Your task to perform on an android device: turn notification dots off Image 0: 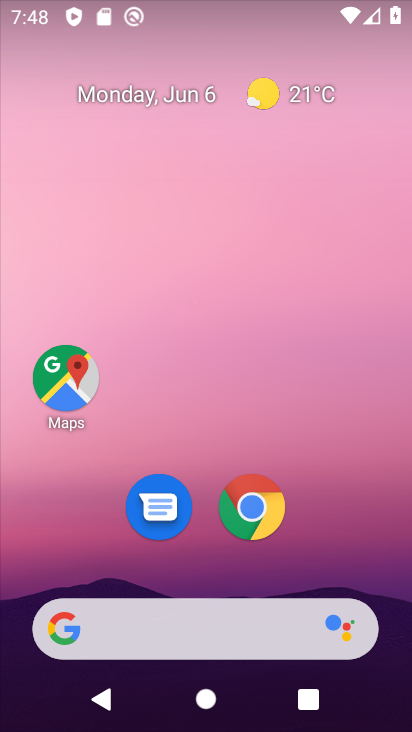
Step 0: drag from (300, 550) to (247, 28)
Your task to perform on an android device: turn notification dots off Image 1: 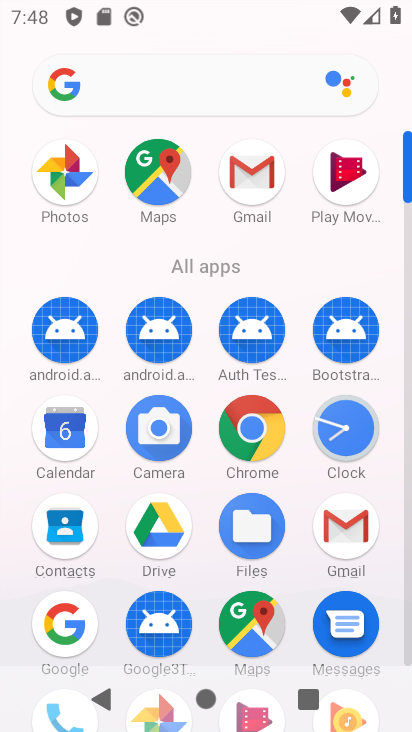
Step 1: drag from (289, 565) to (238, 212)
Your task to perform on an android device: turn notification dots off Image 2: 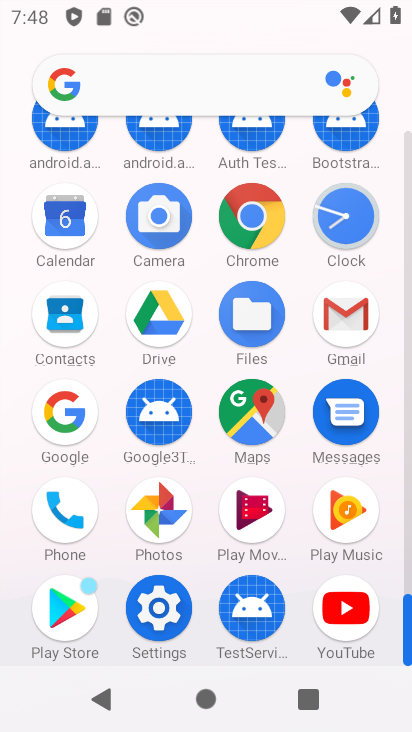
Step 2: click (169, 610)
Your task to perform on an android device: turn notification dots off Image 3: 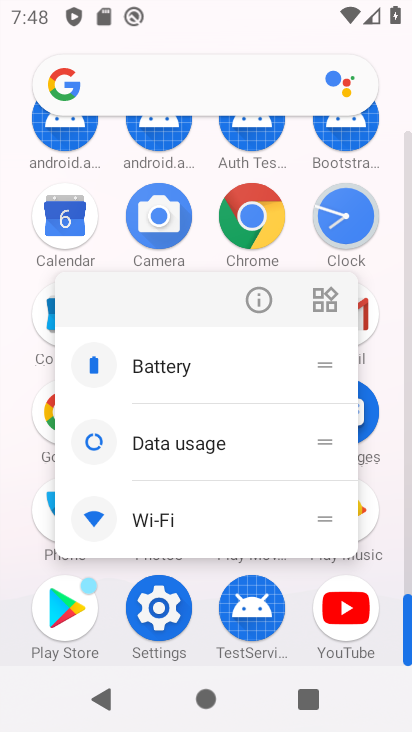
Step 3: click (169, 610)
Your task to perform on an android device: turn notification dots off Image 4: 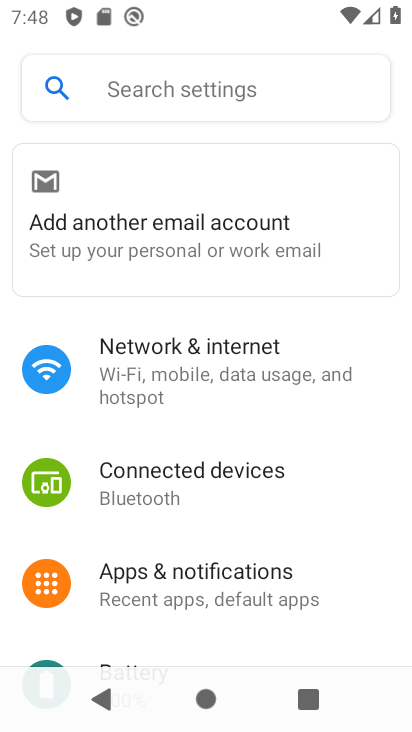
Step 4: click (164, 598)
Your task to perform on an android device: turn notification dots off Image 5: 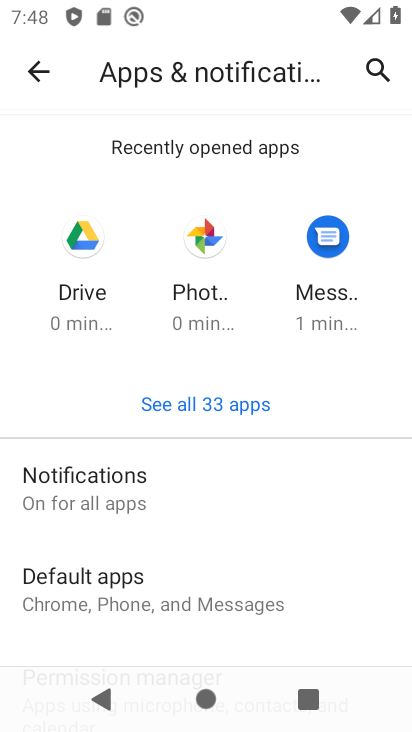
Step 5: click (194, 490)
Your task to perform on an android device: turn notification dots off Image 6: 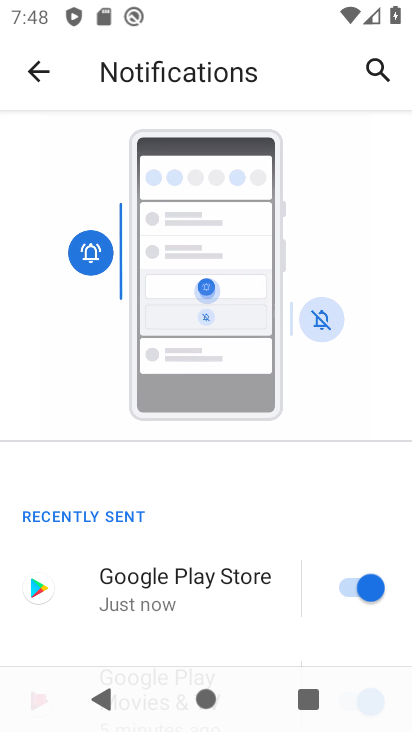
Step 6: drag from (223, 530) to (138, 183)
Your task to perform on an android device: turn notification dots off Image 7: 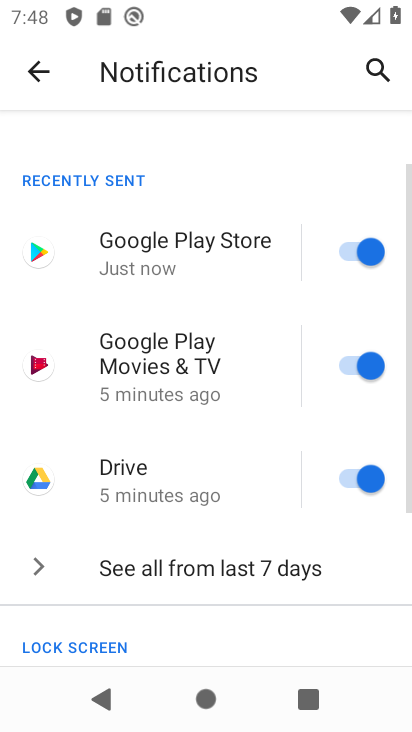
Step 7: drag from (201, 520) to (133, 233)
Your task to perform on an android device: turn notification dots off Image 8: 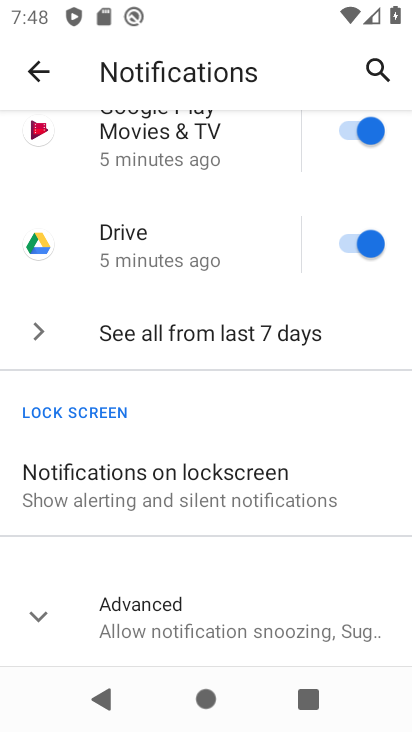
Step 8: click (175, 616)
Your task to perform on an android device: turn notification dots off Image 9: 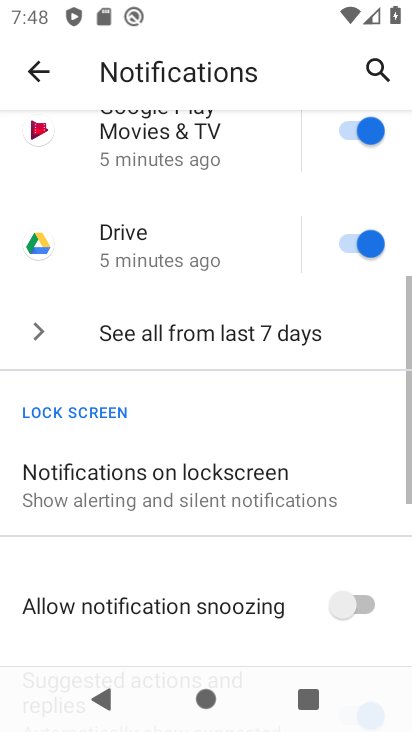
Step 9: drag from (140, 526) to (143, 246)
Your task to perform on an android device: turn notification dots off Image 10: 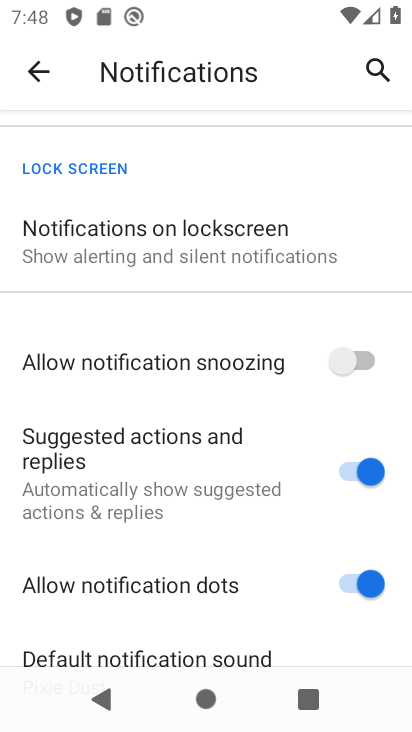
Step 10: click (376, 585)
Your task to perform on an android device: turn notification dots off Image 11: 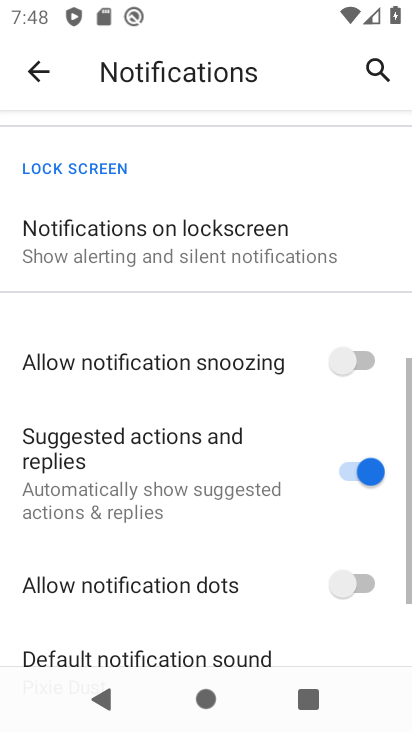
Step 11: task complete